Your task to perform on an android device: Go to Google maps Image 0: 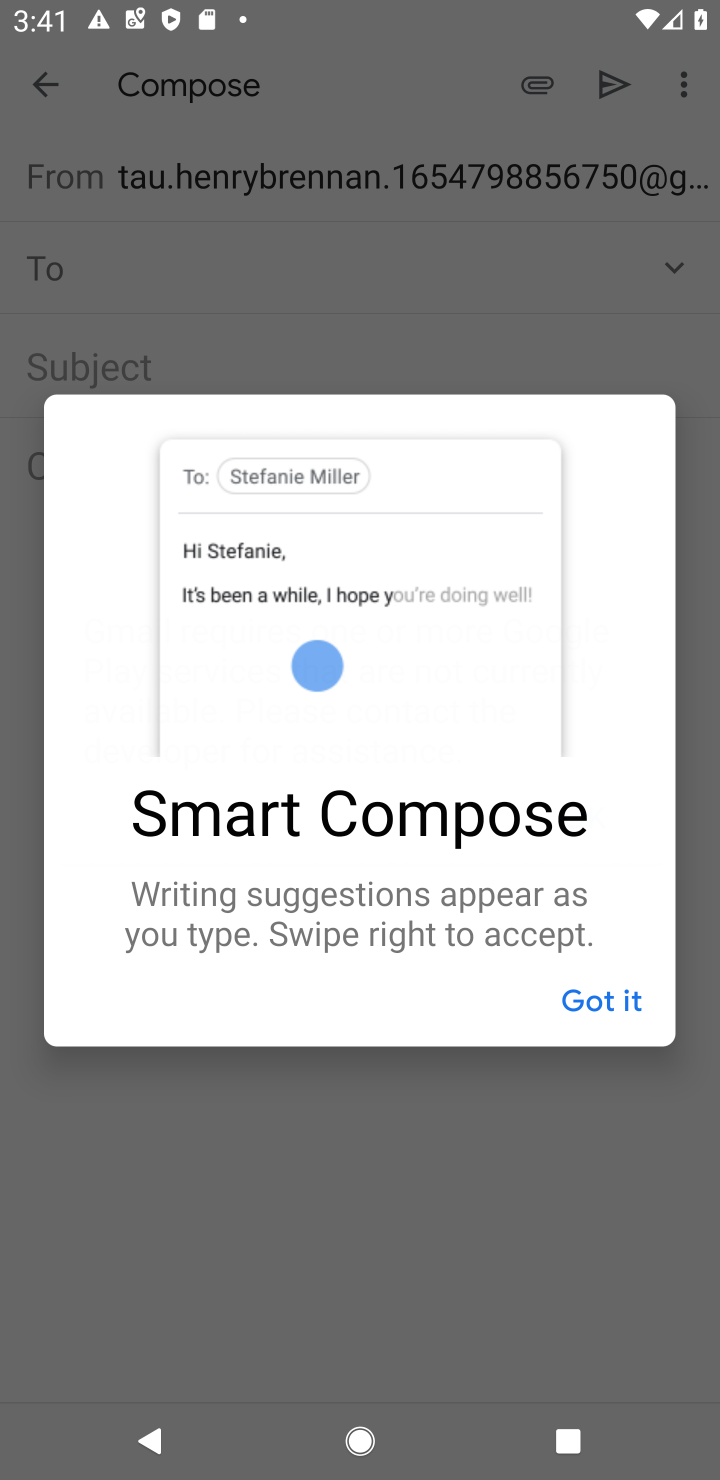
Step 0: click (602, 1243)
Your task to perform on an android device: Go to Google maps Image 1: 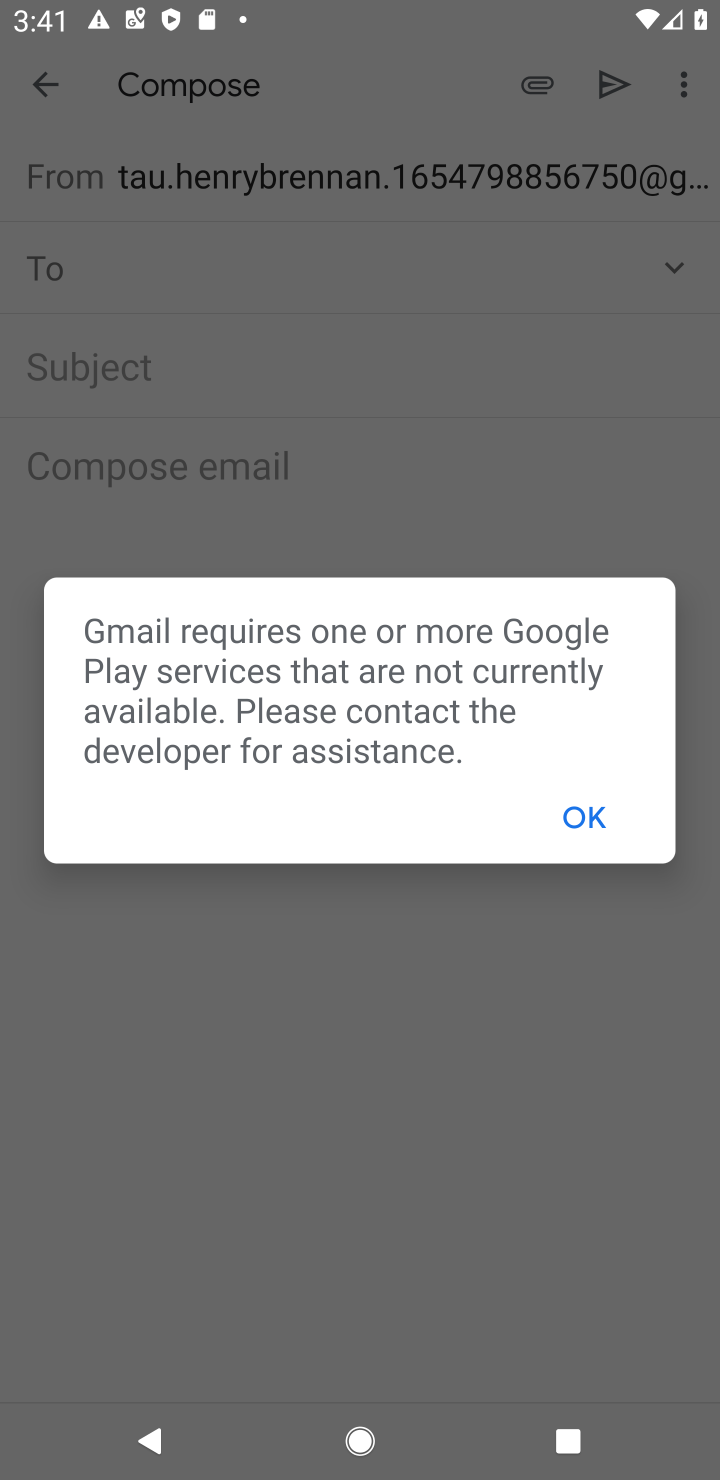
Step 1: press home button
Your task to perform on an android device: Go to Google maps Image 2: 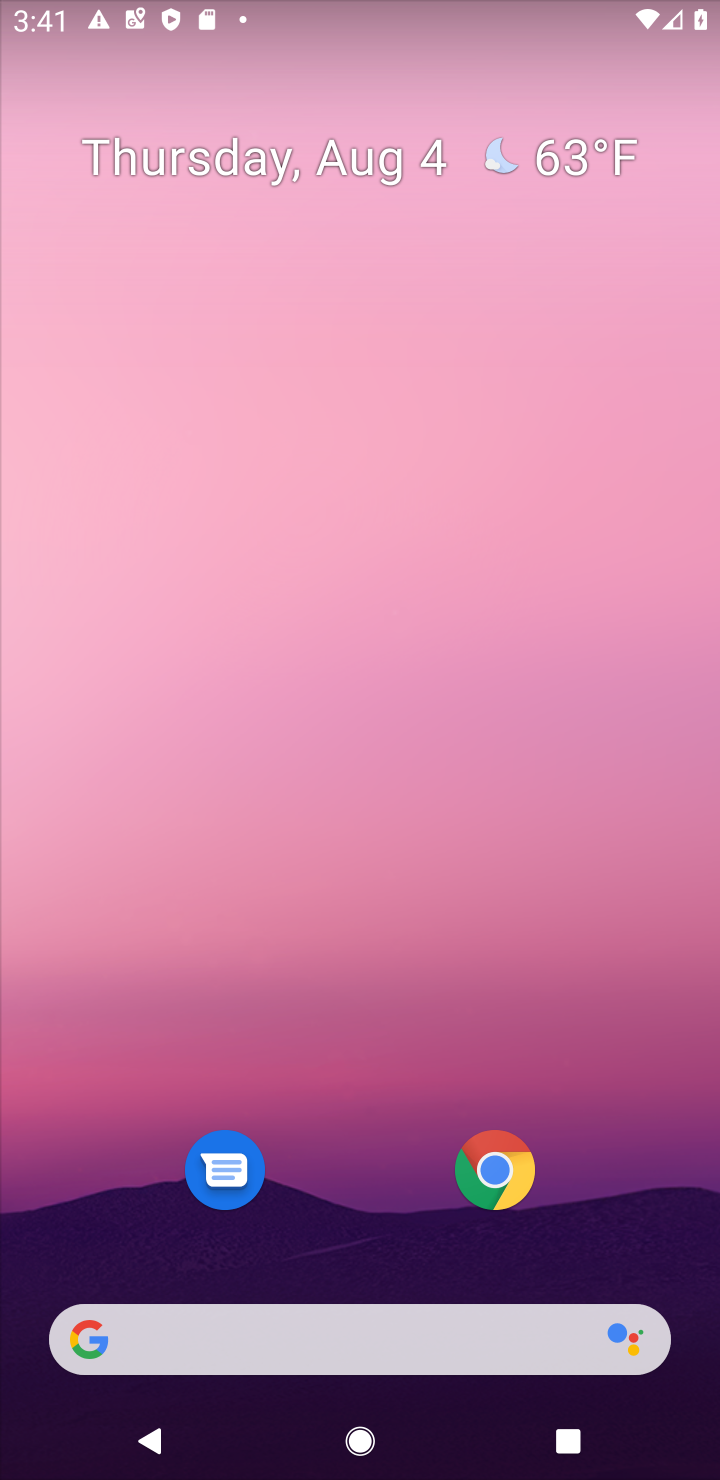
Step 2: drag from (657, 1224) to (616, 185)
Your task to perform on an android device: Go to Google maps Image 3: 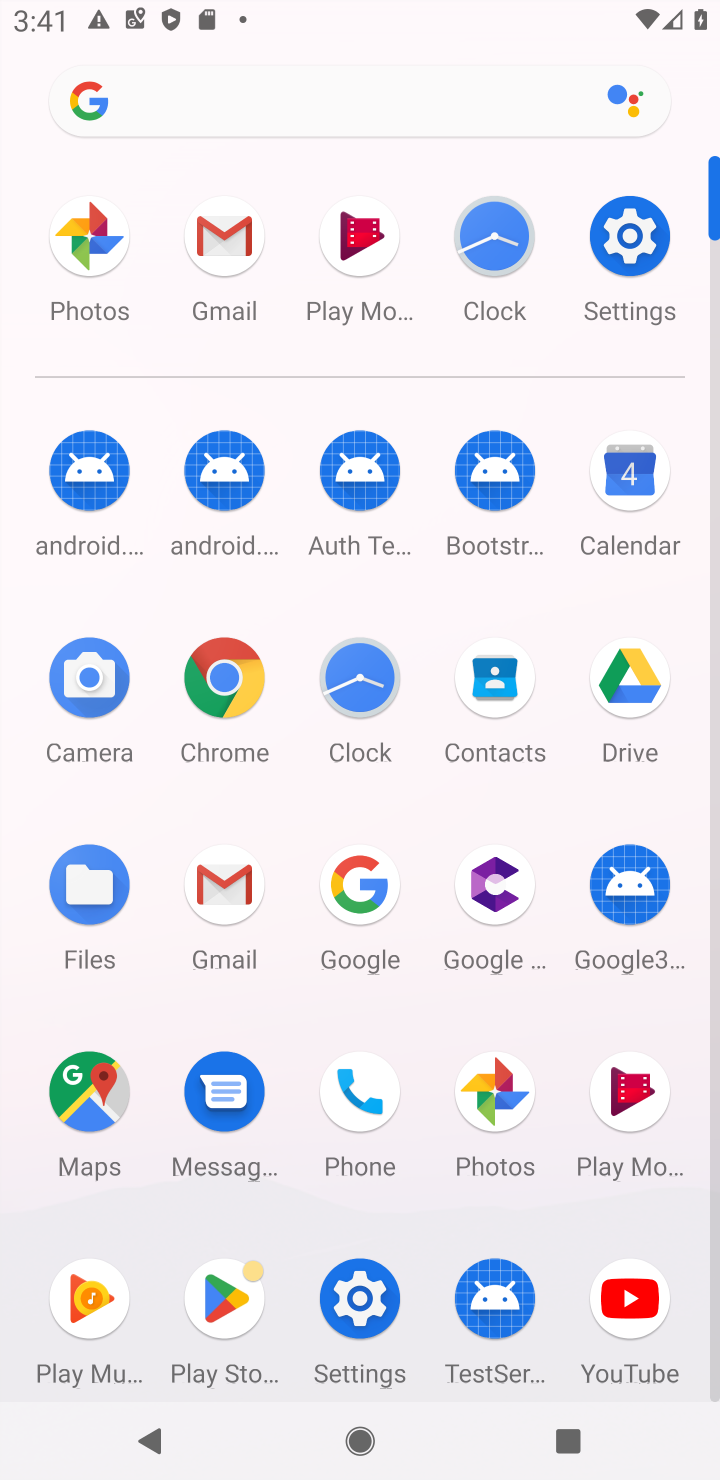
Step 3: click (91, 1089)
Your task to perform on an android device: Go to Google maps Image 4: 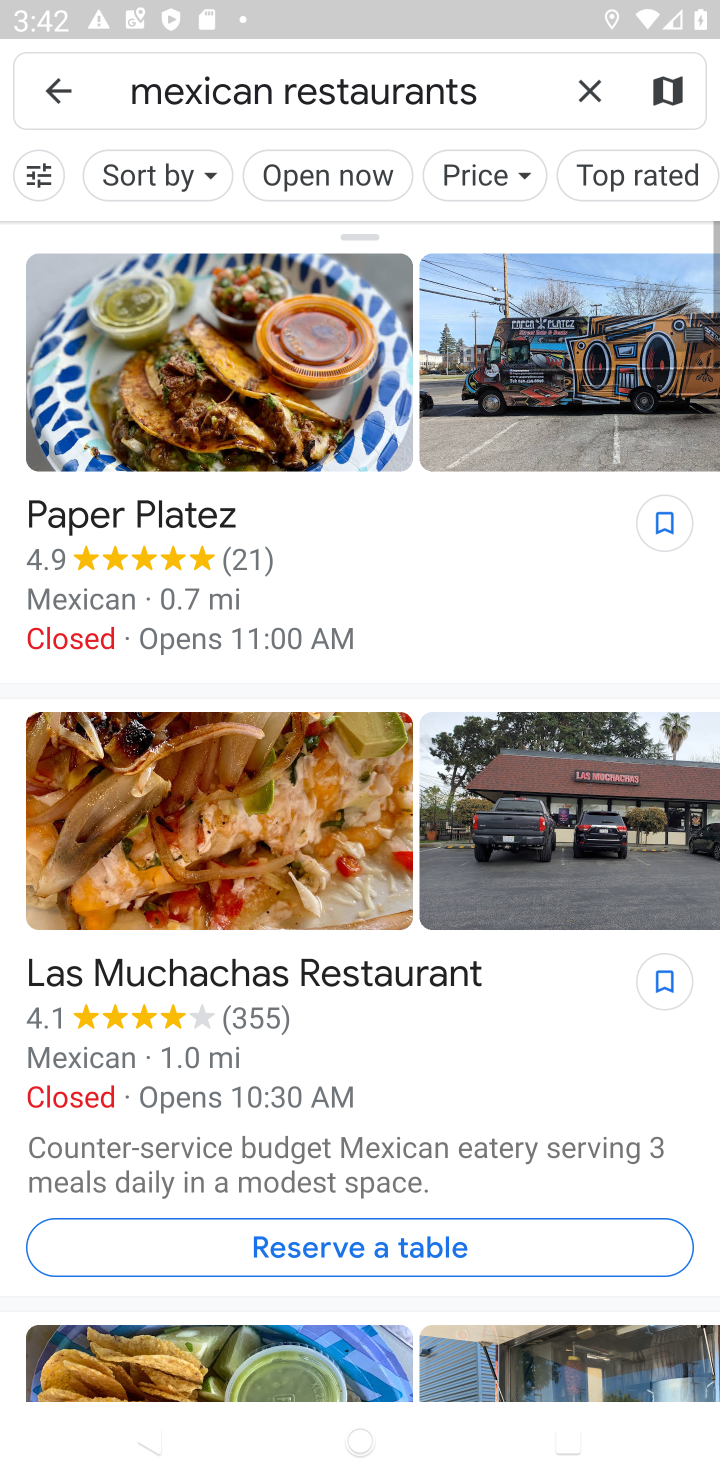
Step 4: click (583, 86)
Your task to perform on an android device: Go to Google maps Image 5: 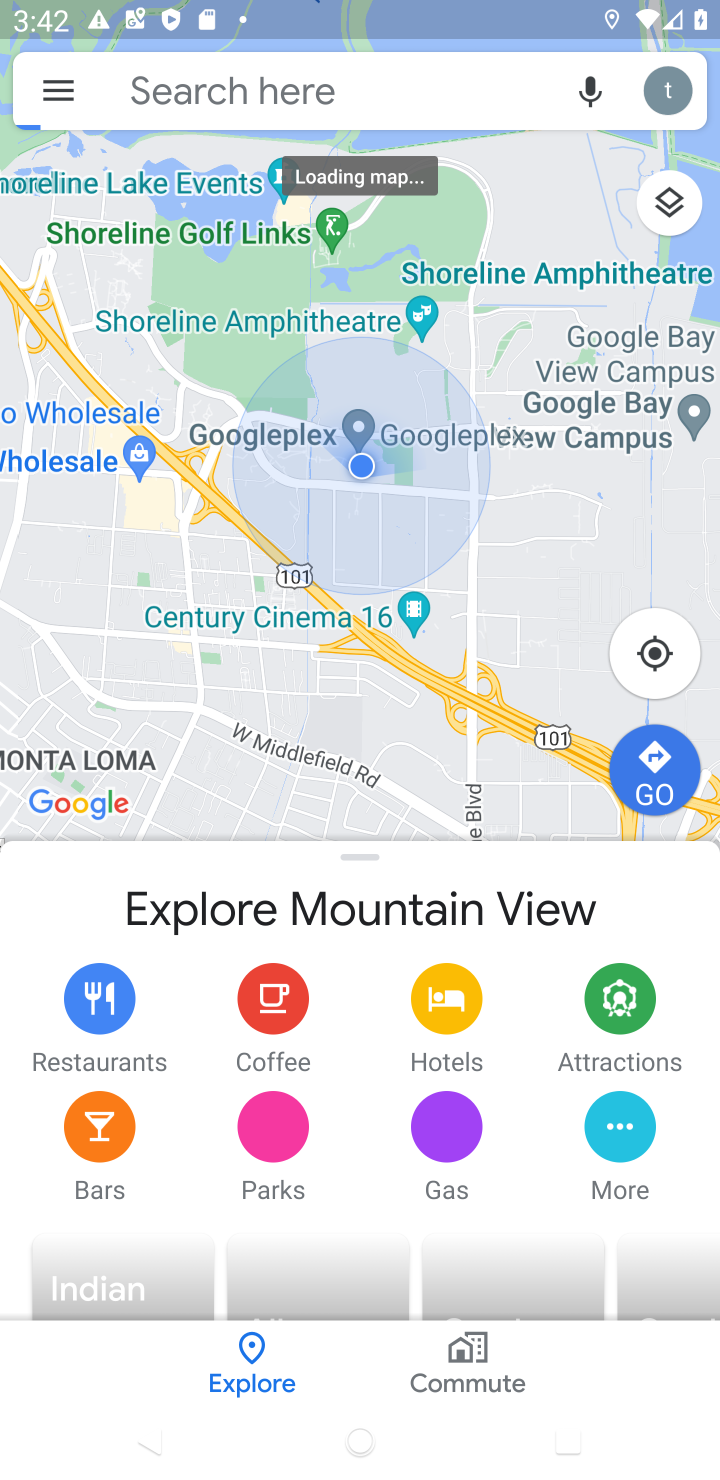
Step 5: task complete